Your task to perform on an android device: delete location history Image 0: 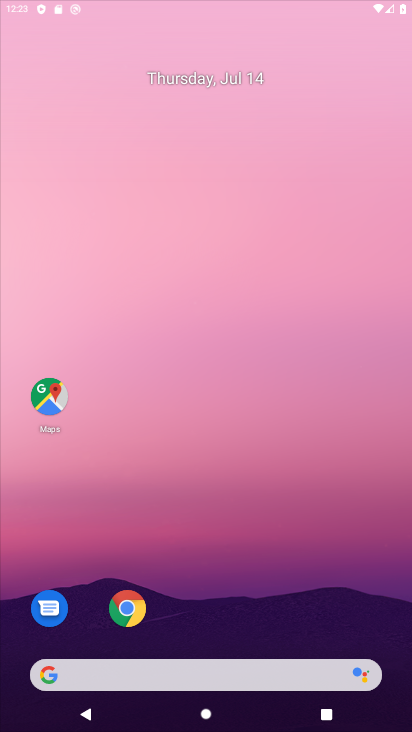
Step 0: drag from (177, 624) to (248, 78)
Your task to perform on an android device: delete location history Image 1: 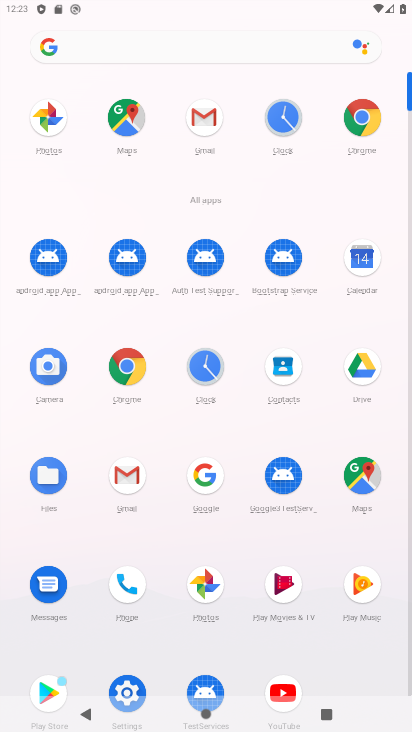
Step 1: click (130, 679)
Your task to perform on an android device: delete location history Image 2: 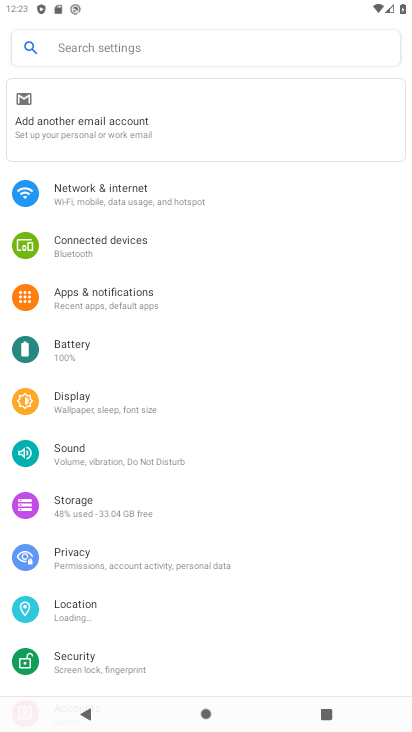
Step 2: drag from (169, 628) to (259, 206)
Your task to perform on an android device: delete location history Image 3: 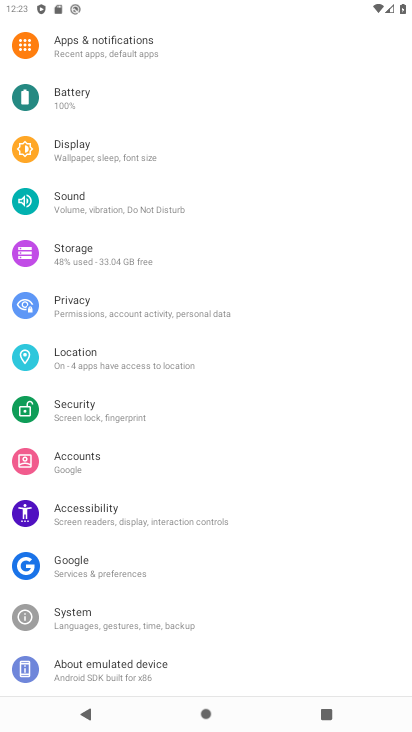
Step 3: drag from (184, 564) to (221, 249)
Your task to perform on an android device: delete location history Image 4: 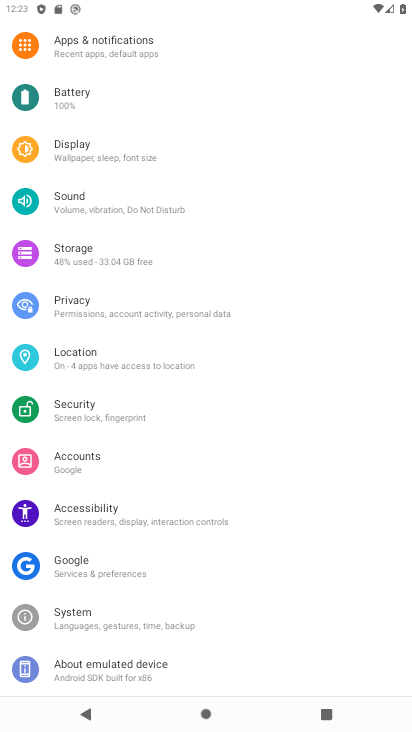
Step 4: click (127, 352)
Your task to perform on an android device: delete location history Image 5: 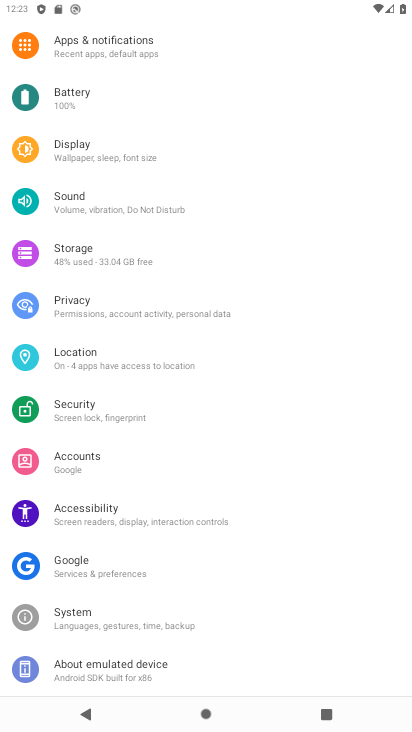
Step 5: click (127, 352)
Your task to perform on an android device: delete location history Image 6: 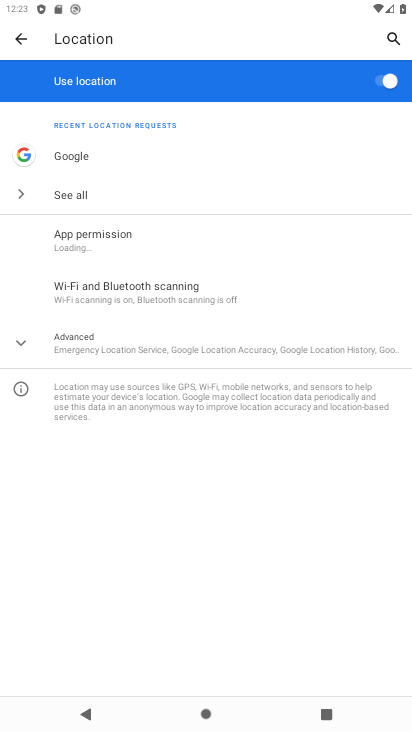
Step 6: drag from (226, 588) to (261, 317)
Your task to perform on an android device: delete location history Image 7: 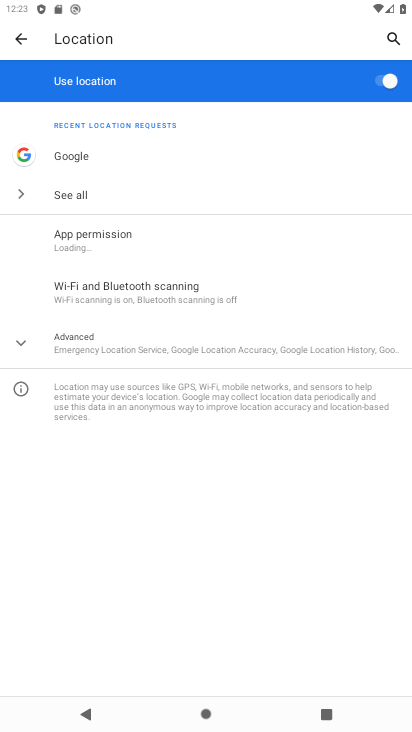
Step 7: click (156, 328)
Your task to perform on an android device: delete location history Image 8: 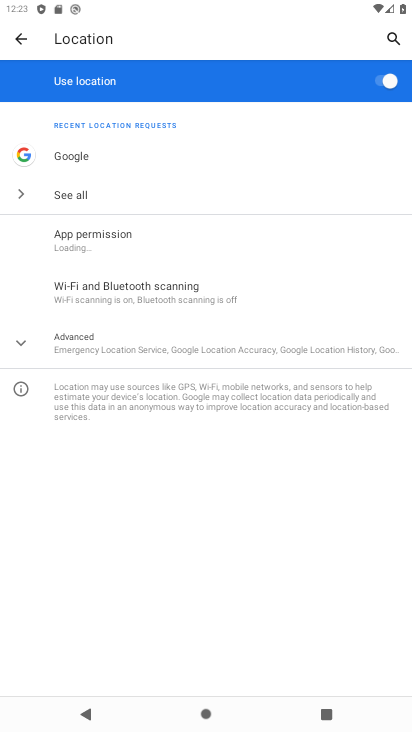
Step 8: click (156, 328)
Your task to perform on an android device: delete location history Image 9: 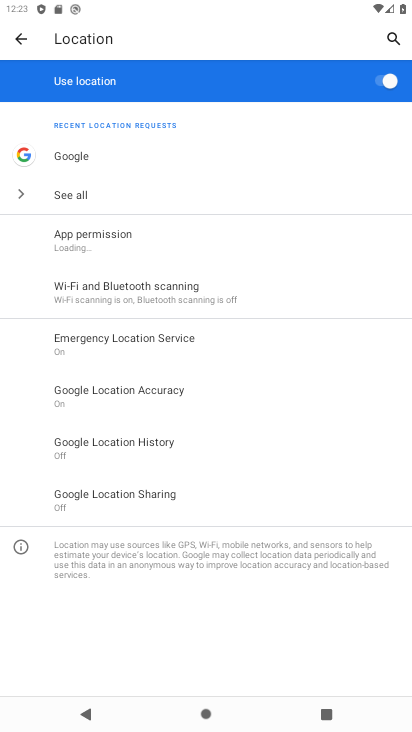
Step 9: drag from (195, 666) to (225, 366)
Your task to perform on an android device: delete location history Image 10: 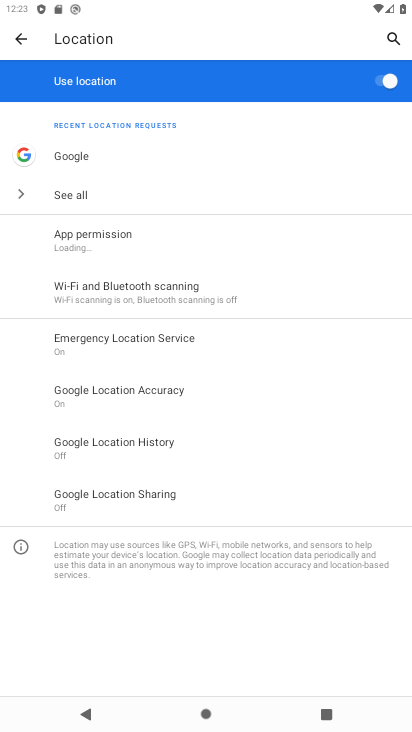
Step 10: click (183, 437)
Your task to perform on an android device: delete location history Image 11: 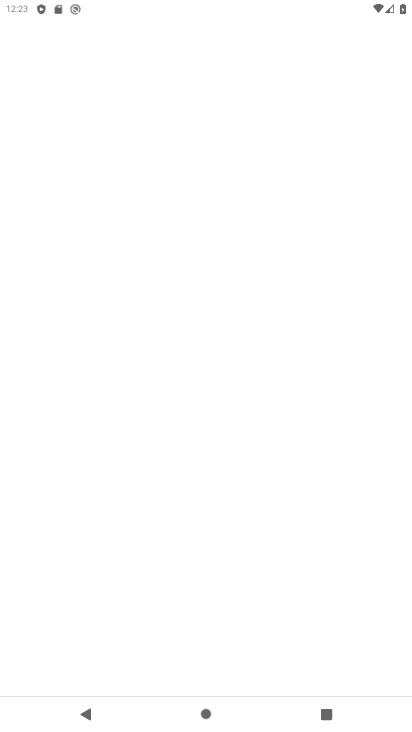
Step 11: drag from (182, 575) to (238, 323)
Your task to perform on an android device: delete location history Image 12: 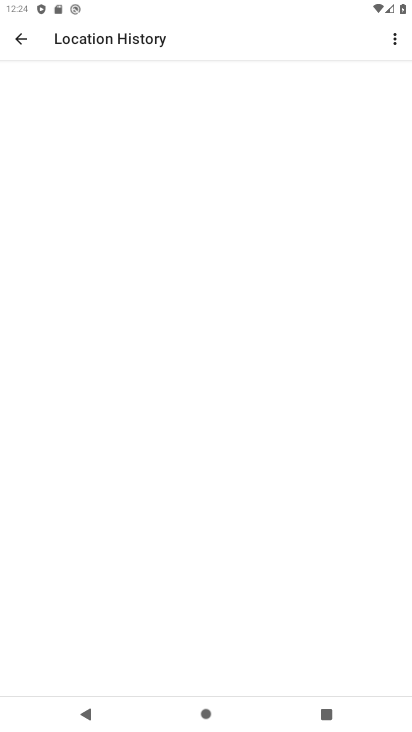
Step 12: drag from (223, 456) to (264, 303)
Your task to perform on an android device: delete location history Image 13: 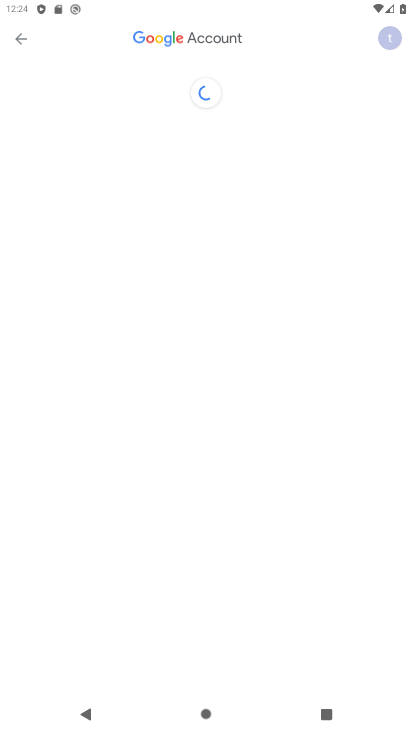
Step 13: drag from (200, 541) to (223, 321)
Your task to perform on an android device: delete location history Image 14: 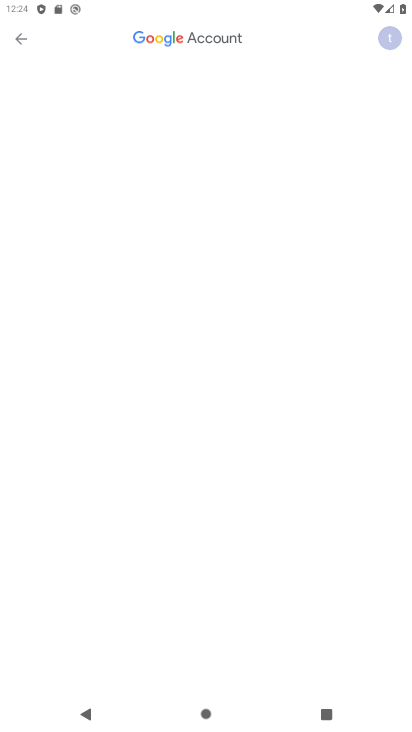
Step 14: drag from (183, 560) to (284, 92)
Your task to perform on an android device: delete location history Image 15: 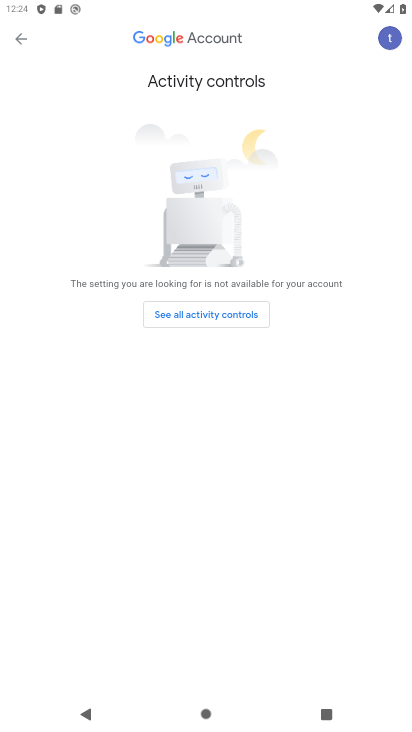
Step 15: drag from (244, 472) to (261, 355)
Your task to perform on an android device: delete location history Image 16: 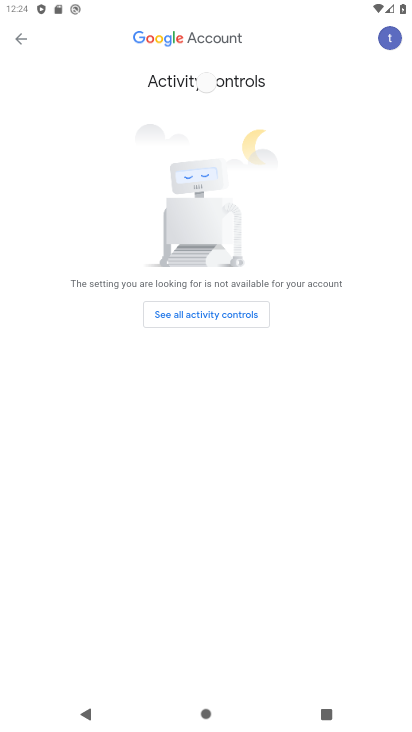
Step 16: click (183, 323)
Your task to perform on an android device: delete location history Image 17: 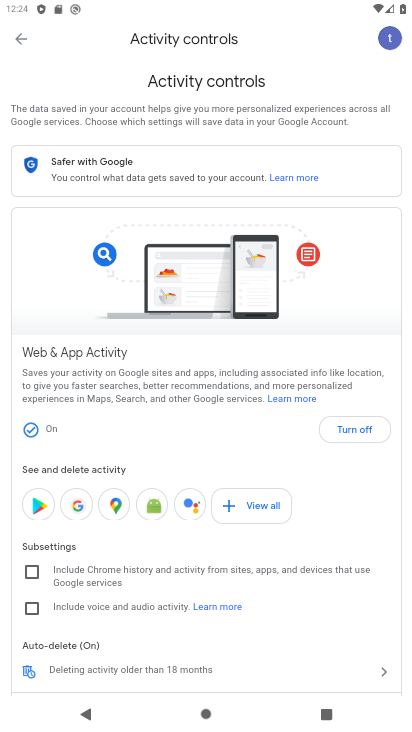
Step 17: drag from (193, 545) to (230, 343)
Your task to perform on an android device: delete location history Image 18: 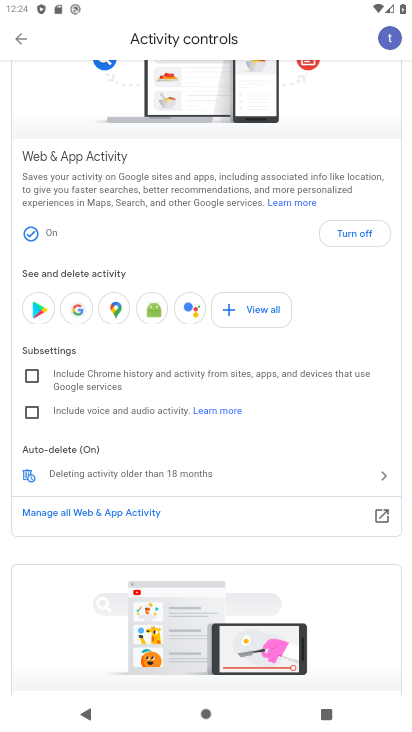
Step 18: click (29, 480)
Your task to perform on an android device: delete location history Image 19: 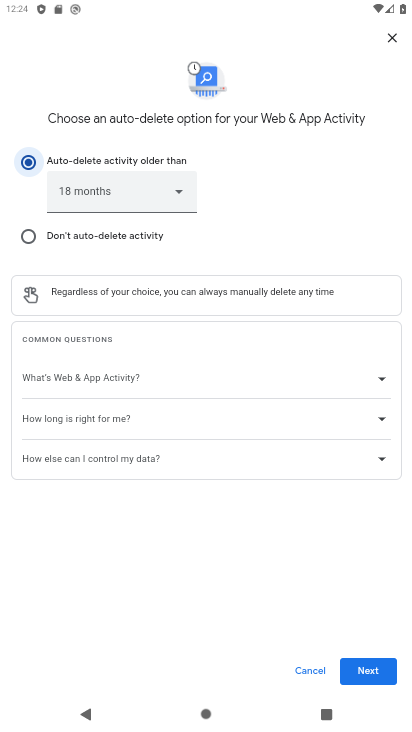
Step 19: drag from (197, 441) to (222, 264)
Your task to perform on an android device: delete location history Image 20: 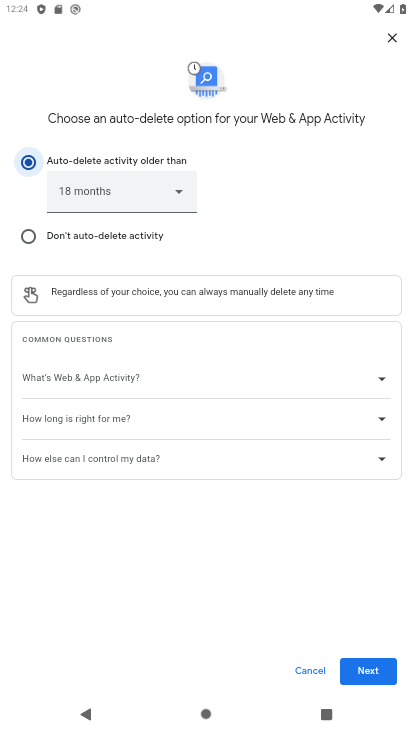
Step 20: click (364, 676)
Your task to perform on an android device: delete location history Image 21: 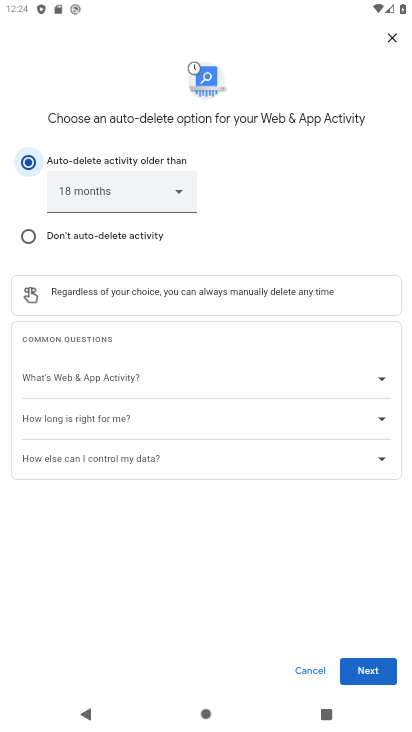
Step 21: click (364, 674)
Your task to perform on an android device: delete location history Image 22: 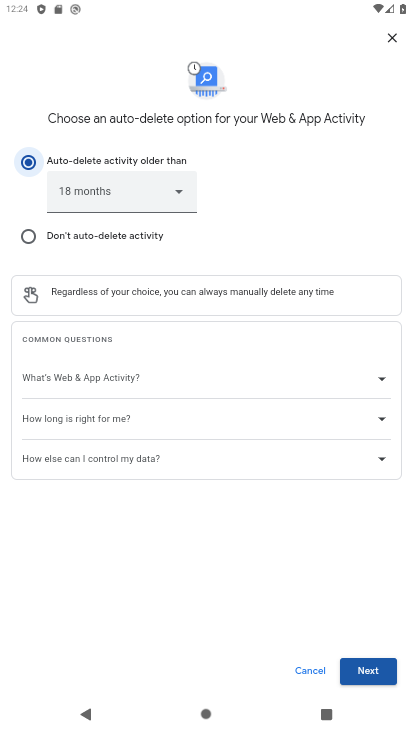
Step 22: click (364, 674)
Your task to perform on an android device: delete location history Image 23: 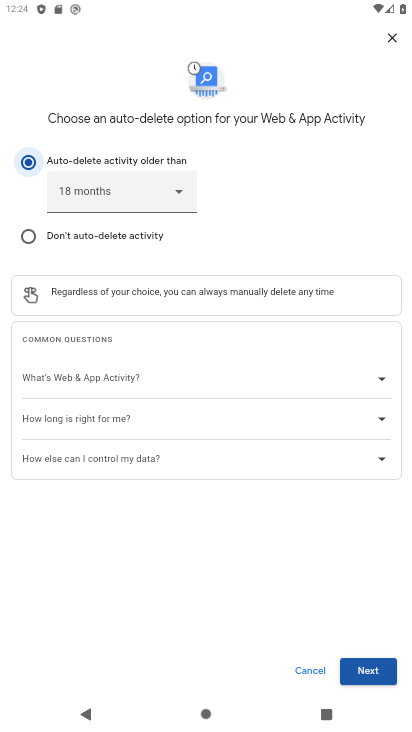
Step 23: click (364, 674)
Your task to perform on an android device: delete location history Image 24: 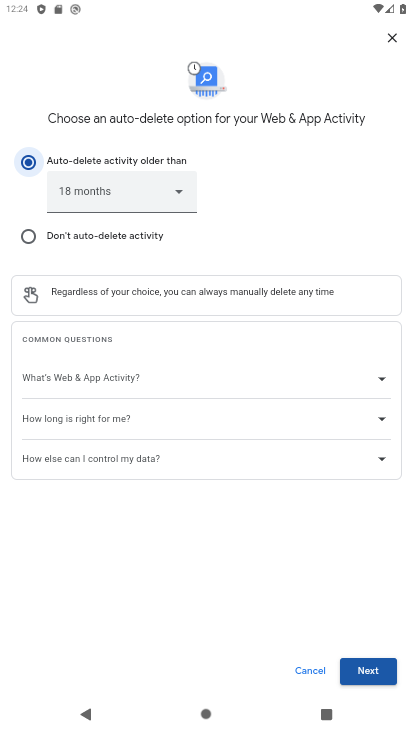
Step 24: click (366, 673)
Your task to perform on an android device: delete location history Image 25: 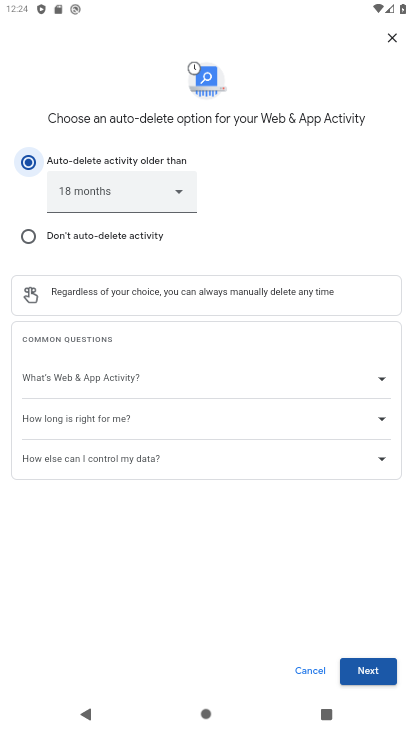
Step 25: click (368, 672)
Your task to perform on an android device: delete location history Image 26: 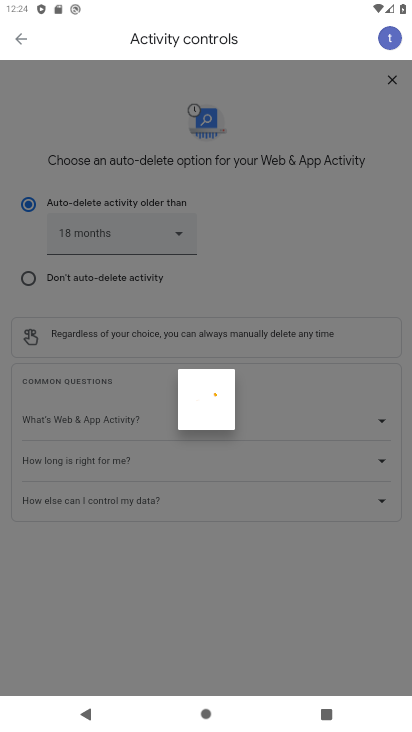
Step 26: click (373, 668)
Your task to perform on an android device: delete location history Image 27: 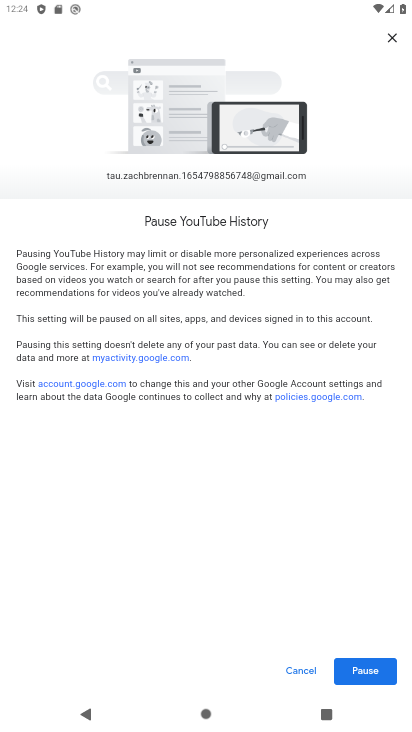
Step 27: click (352, 666)
Your task to perform on an android device: delete location history Image 28: 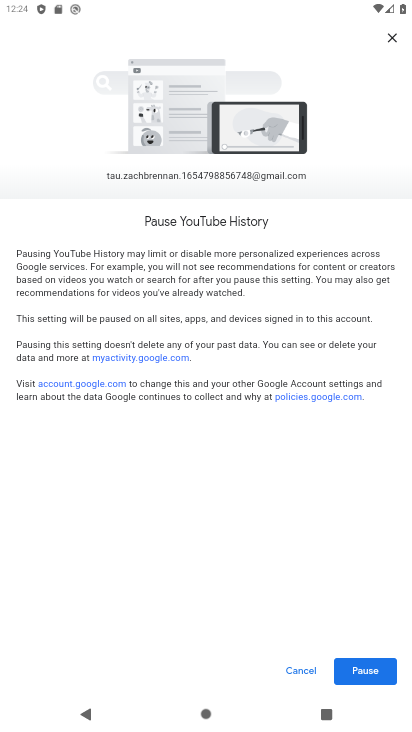
Step 28: drag from (274, 558) to (318, 311)
Your task to perform on an android device: delete location history Image 29: 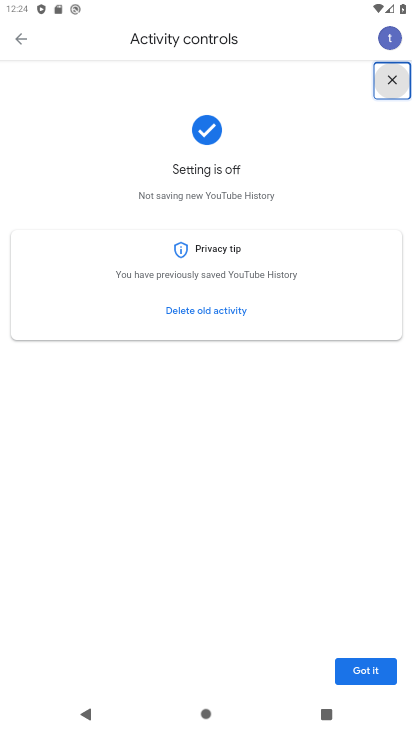
Step 29: drag from (240, 608) to (280, 374)
Your task to perform on an android device: delete location history Image 30: 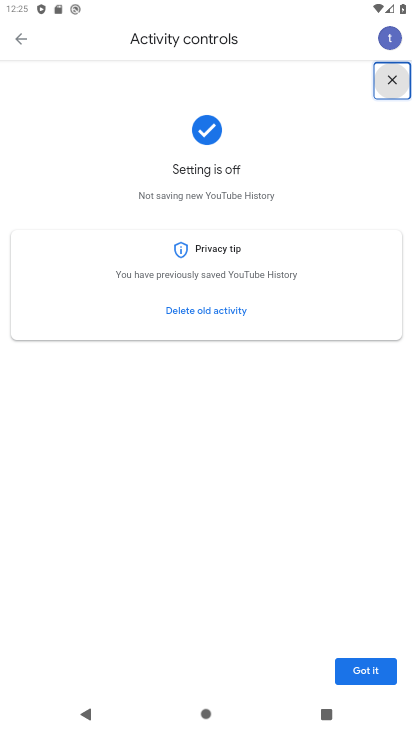
Step 30: click (373, 671)
Your task to perform on an android device: delete location history Image 31: 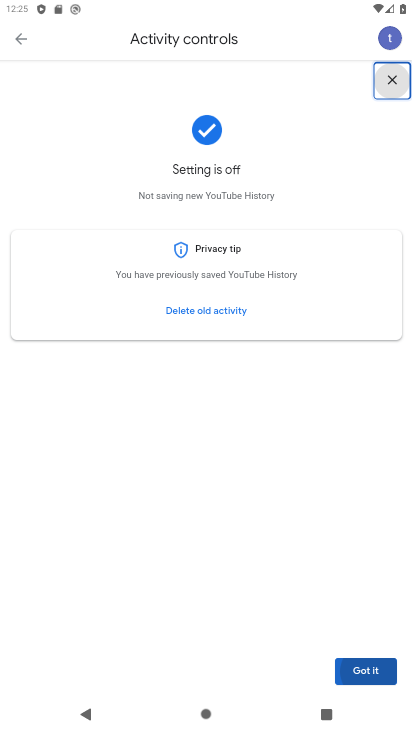
Step 31: task complete